Your task to perform on an android device: Go to Android settings Image 0: 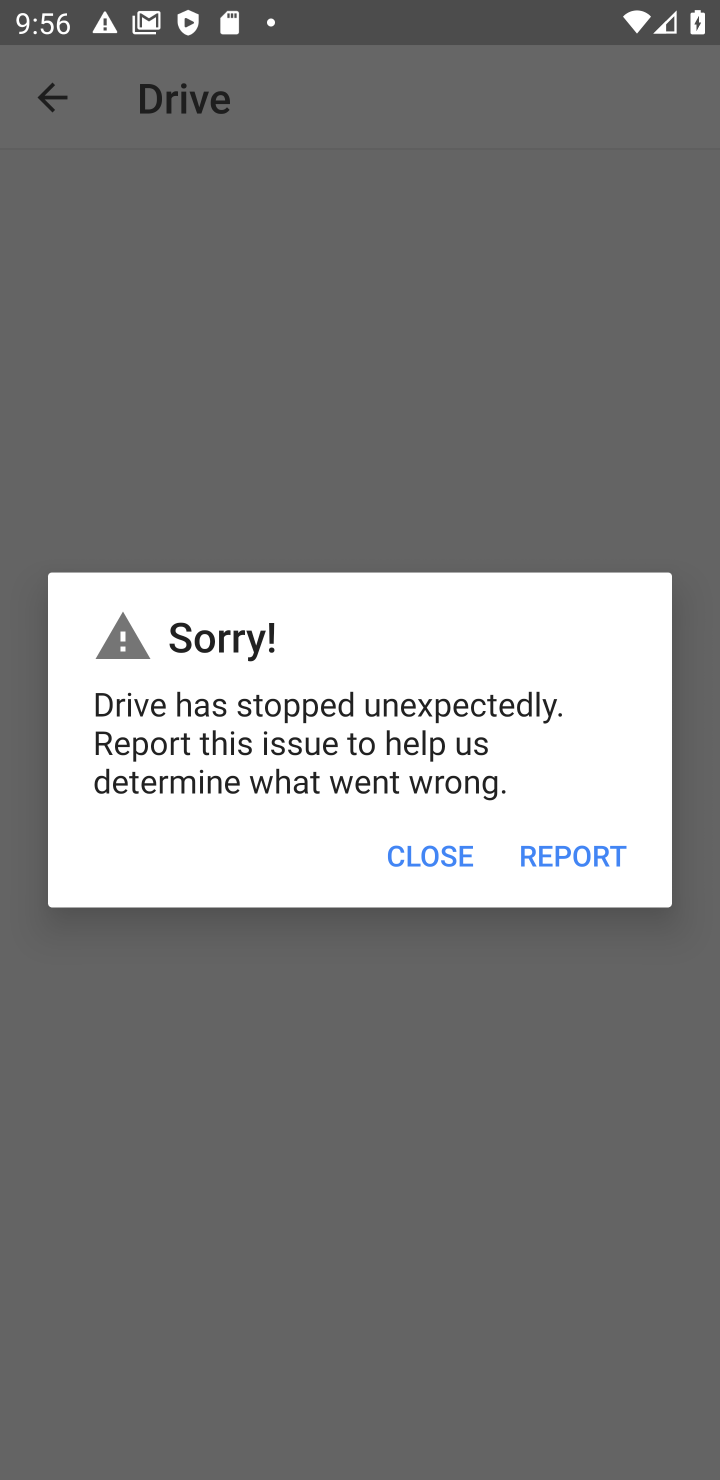
Step 0: press home button
Your task to perform on an android device: Go to Android settings Image 1: 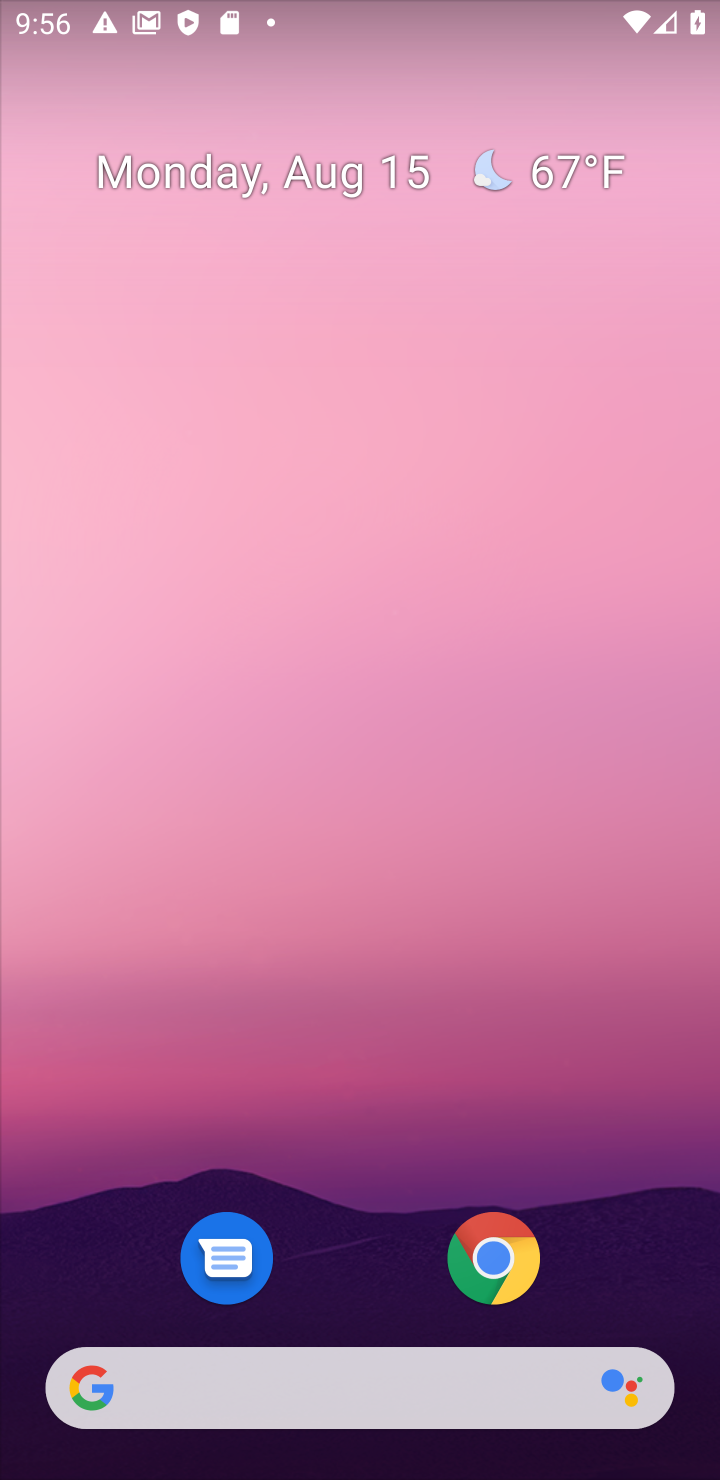
Step 1: drag from (341, 1054) to (382, 212)
Your task to perform on an android device: Go to Android settings Image 2: 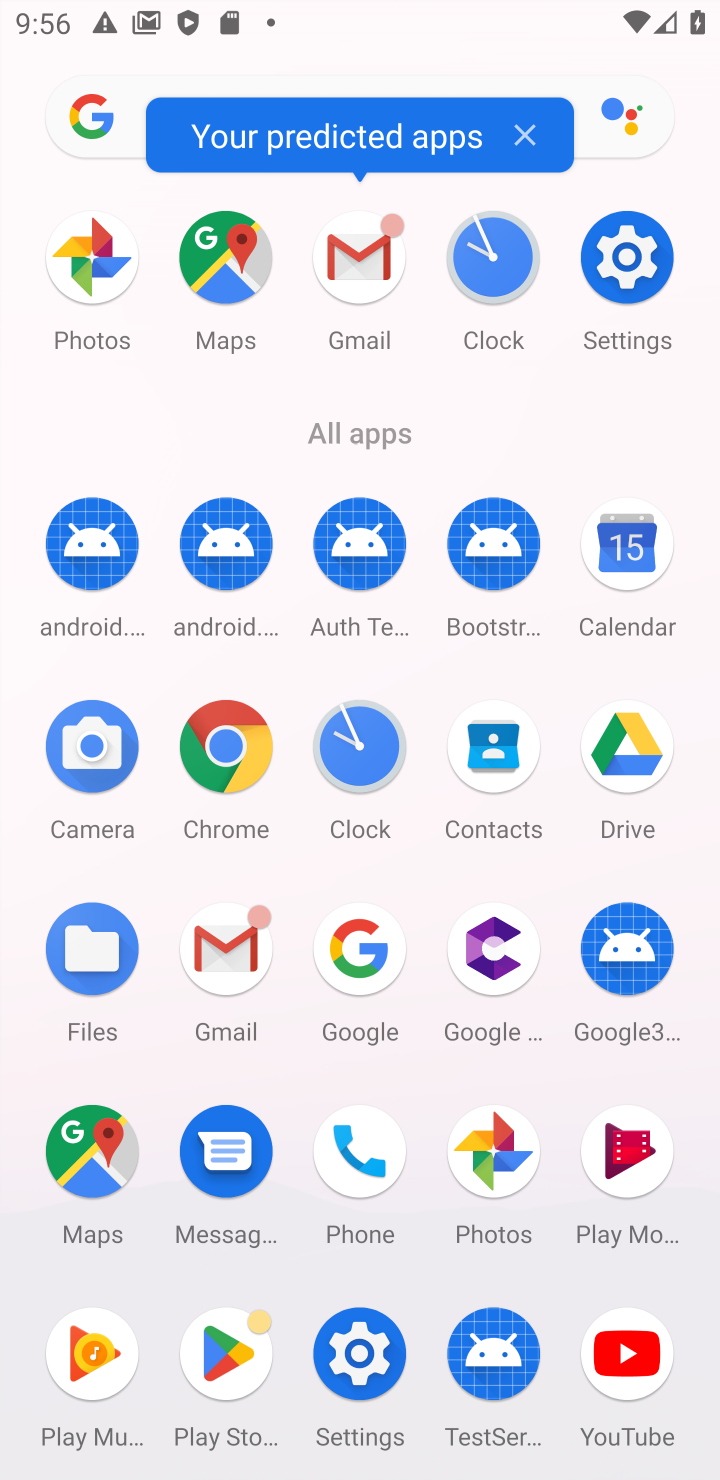
Step 2: click (648, 294)
Your task to perform on an android device: Go to Android settings Image 3: 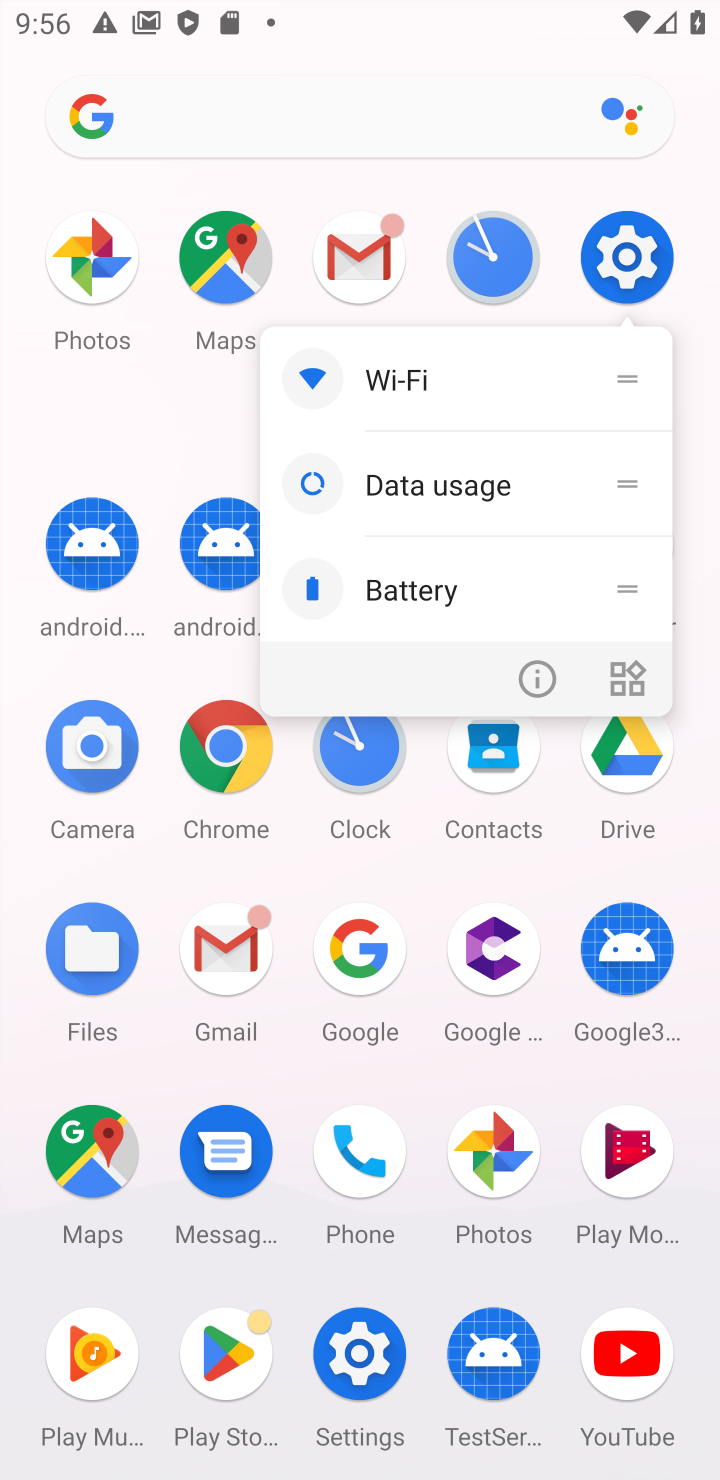
Step 3: click (636, 215)
Your task to perform on an android device: Go to Android settings Image 4: 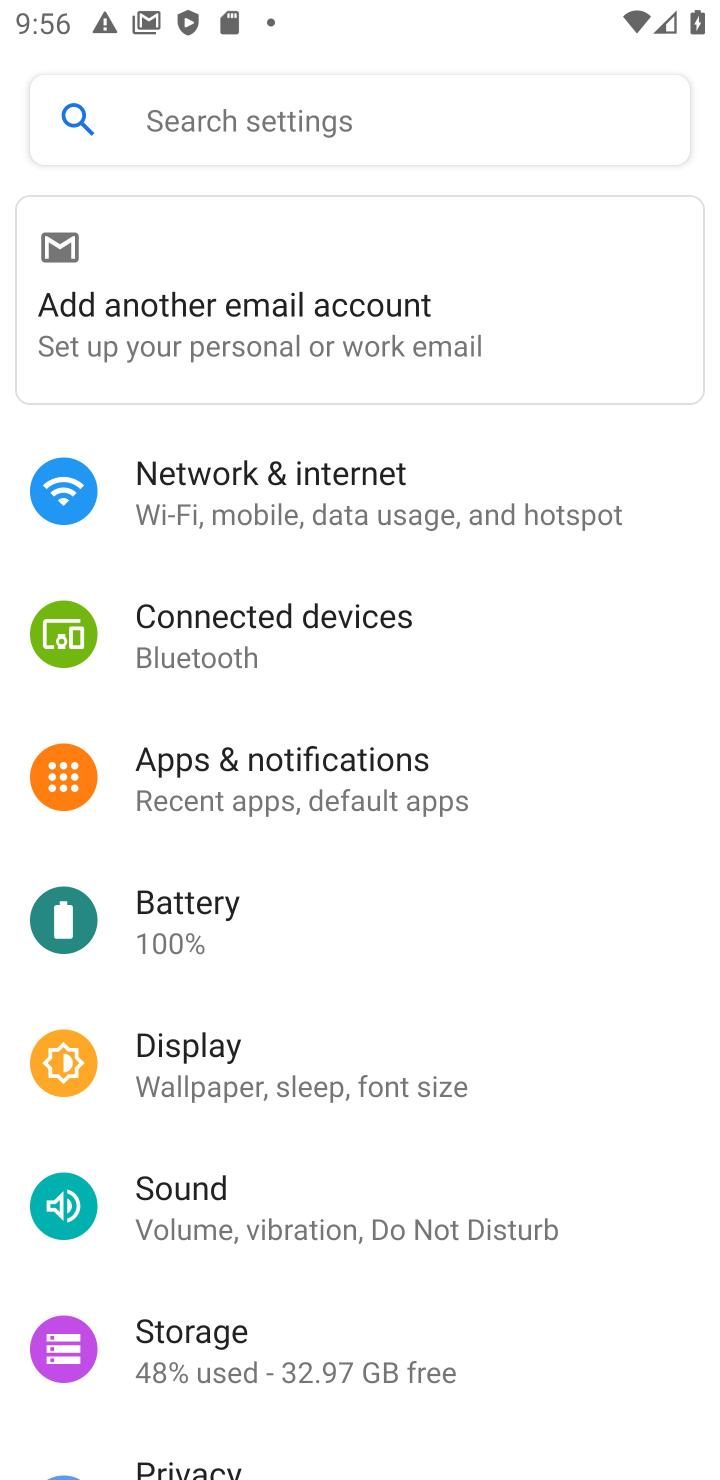
Step 4: drag from (421, 1072) to (609, 4)
Your task to perform on an android device: Go to Android settings Image 5: 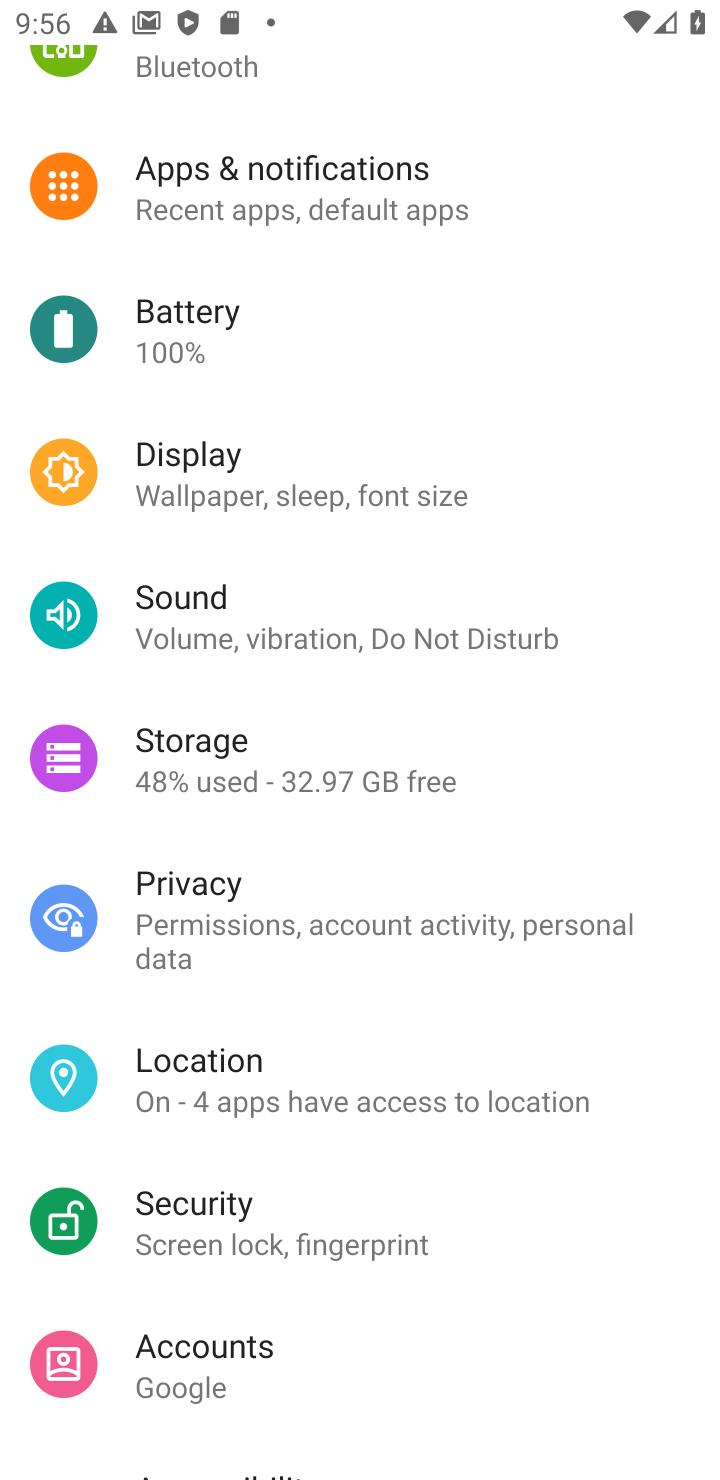
Step 5: drag from (267, 629) to (301, 456)
Your task to perform on an android device: Go to Android settings Image 6: 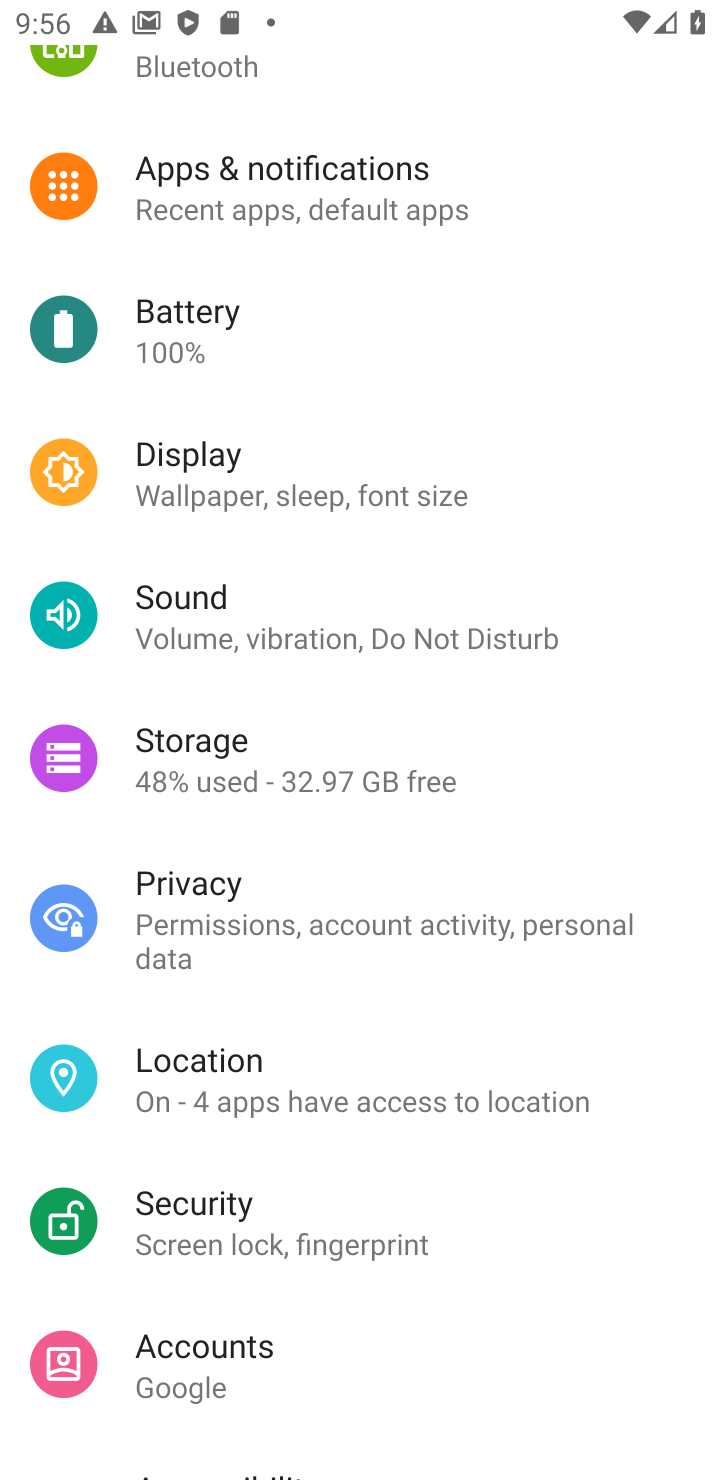
Step 6: drag from (277, 1124) to (279, 574)
Your task to perform on an android device: Go to Android settings Image 7: 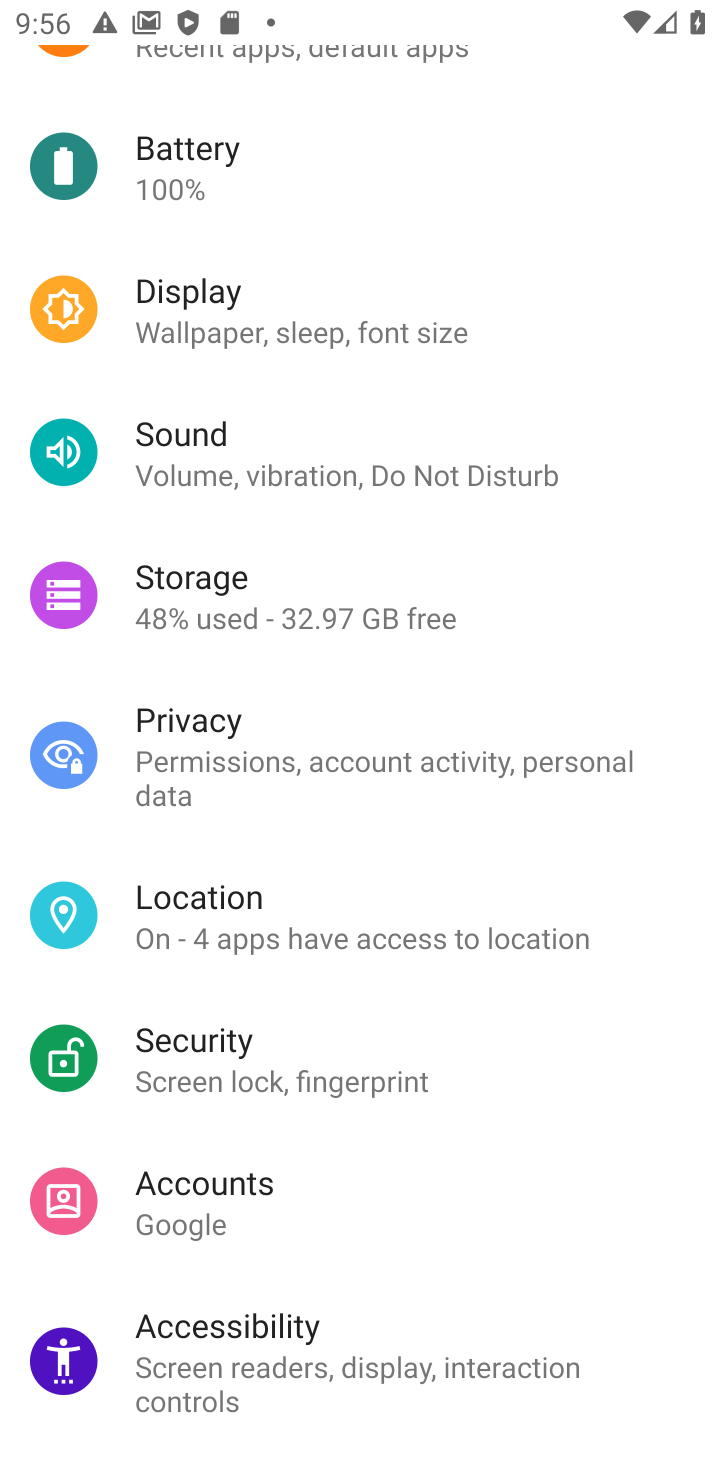
Step 7: drag from (300, 1349) to (359, 538)
Your task to perform on an android device: Go to Android settings Image 8: 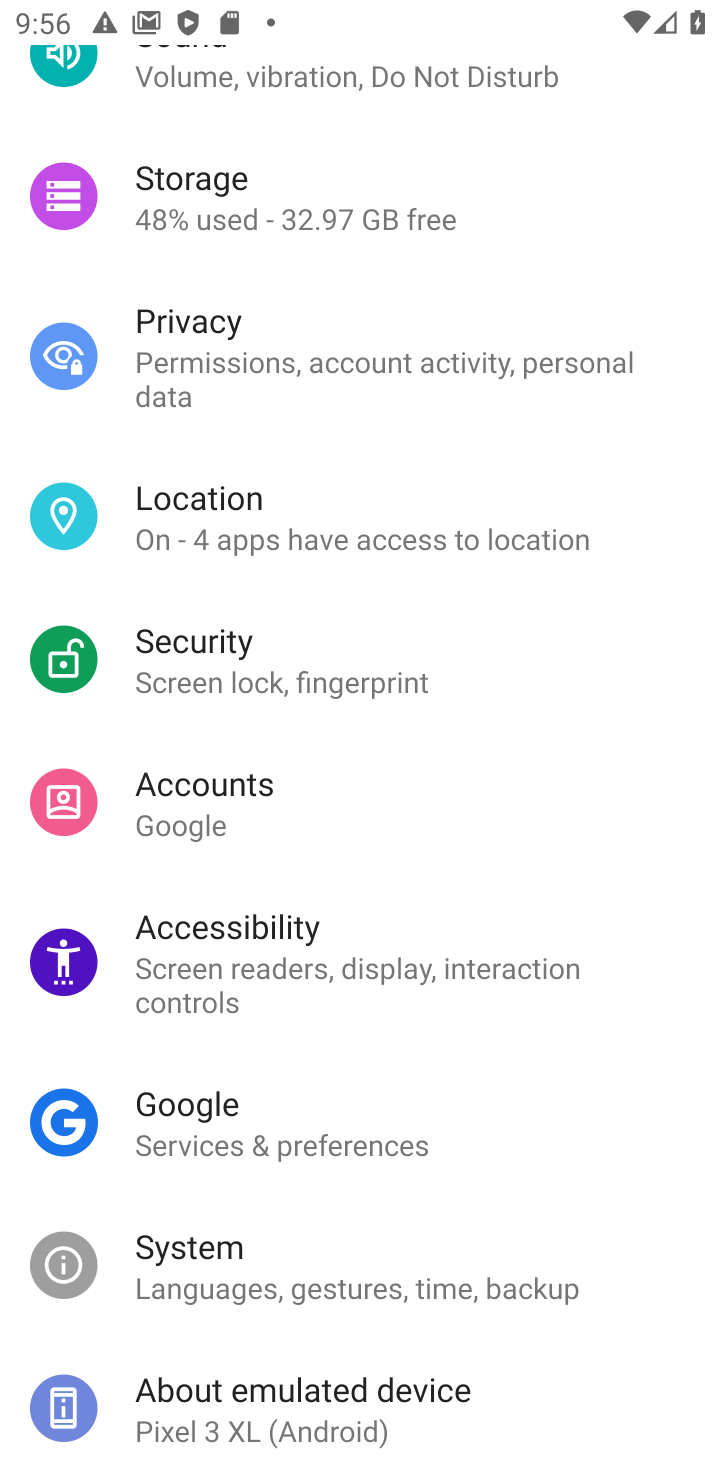
Step 8: click (230, 1387)
Your task to perform on an android device: Go to Android settings Image 9: 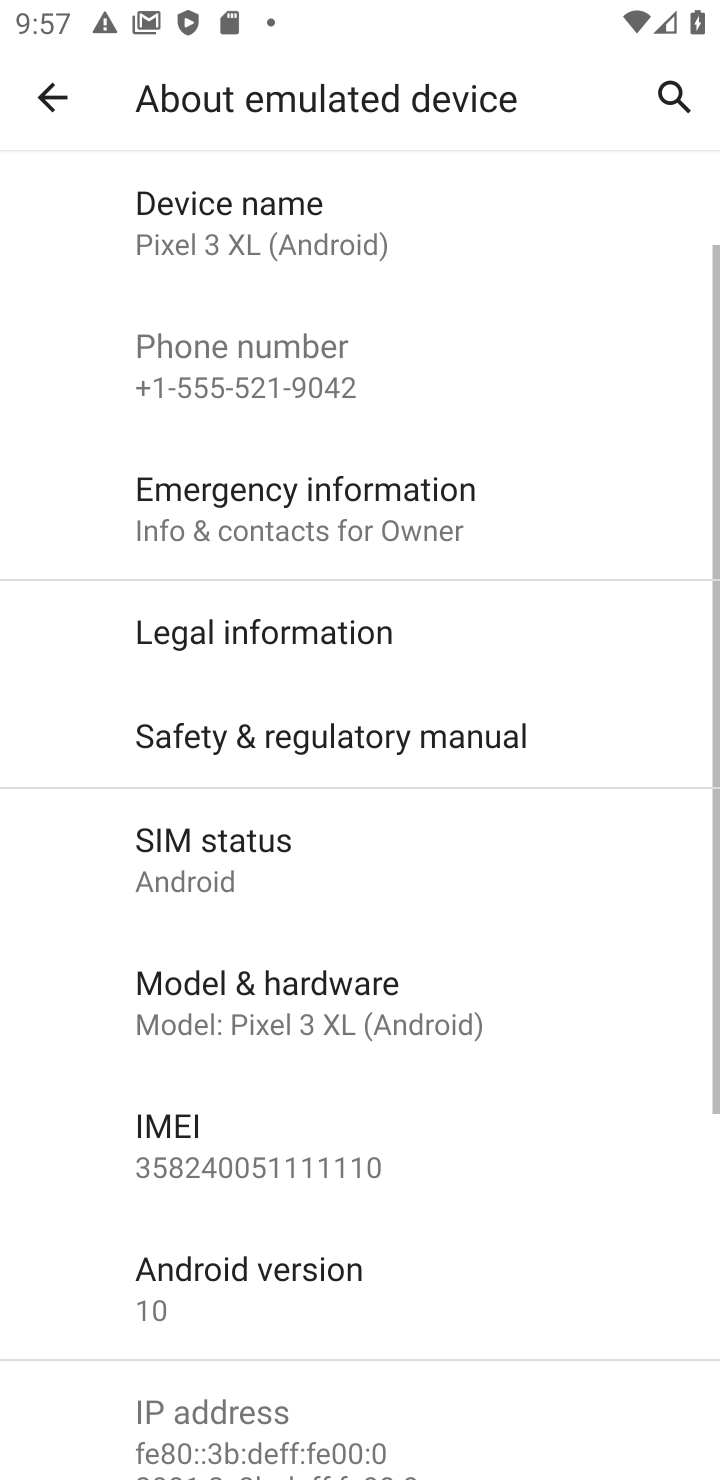
Step 9: click (239, 1279)
Your task to perform on an android device: Go to Android settings Image 10: 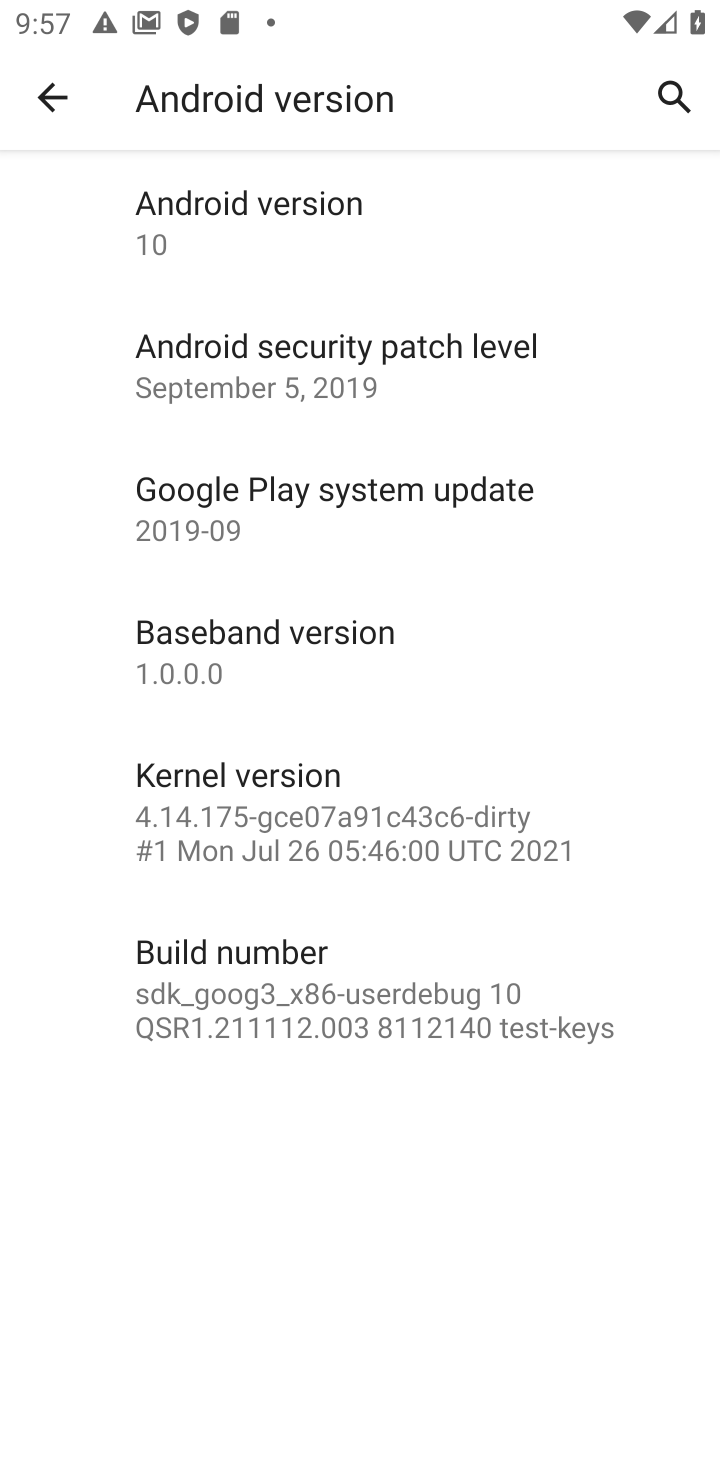
Step 10: task complete